Your task to perform on an android device: Go to settings Image 0: 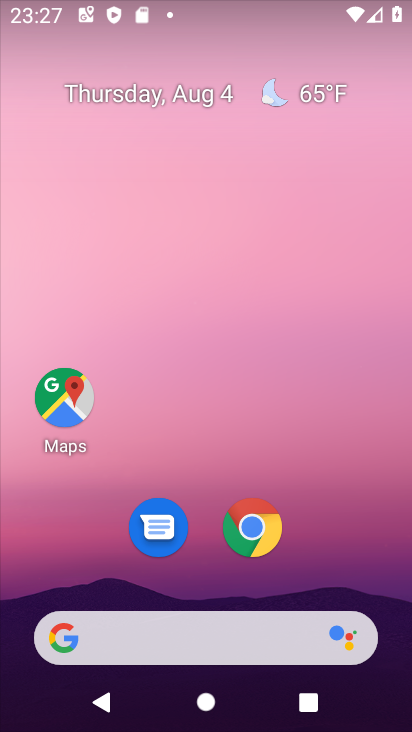
Step 0: drag from (155, 682) to (227, 152)
Your task to perform on an android device: Go to settings Image 1: 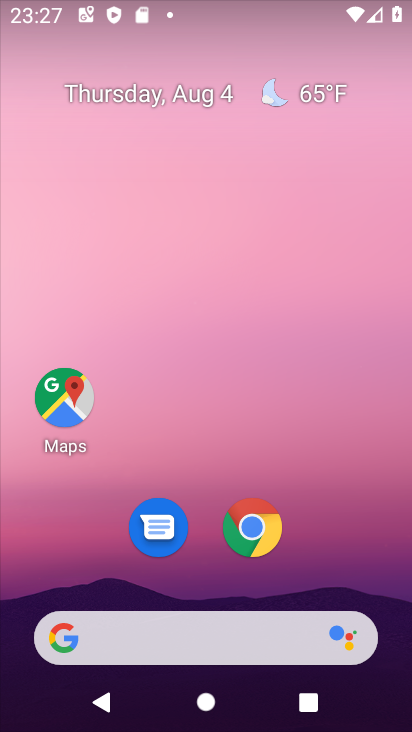
Step 1: drag from (145, 695) to (205, 234)
Your task to perform on an android device: Go to settings Image 2: 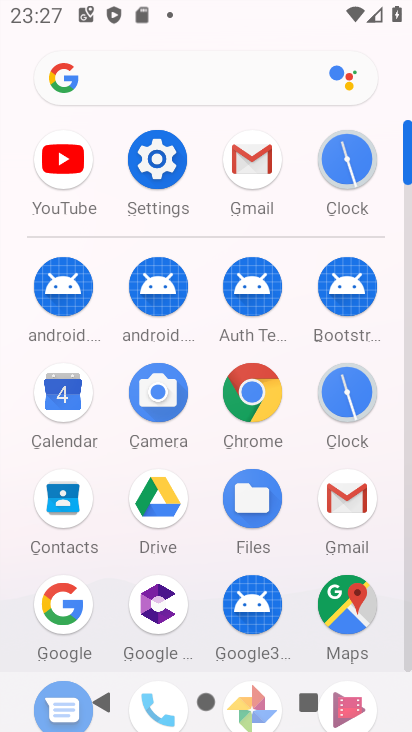
Step 2: click (136, 178)
Your task to perform on an android device: Go to settings Image 3: 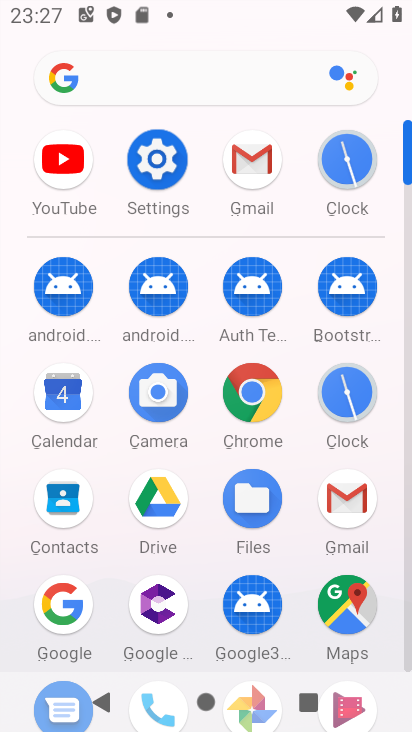
Step 3: click (136, 178)
Your task to perform on an android device: Go to settings Image 4: 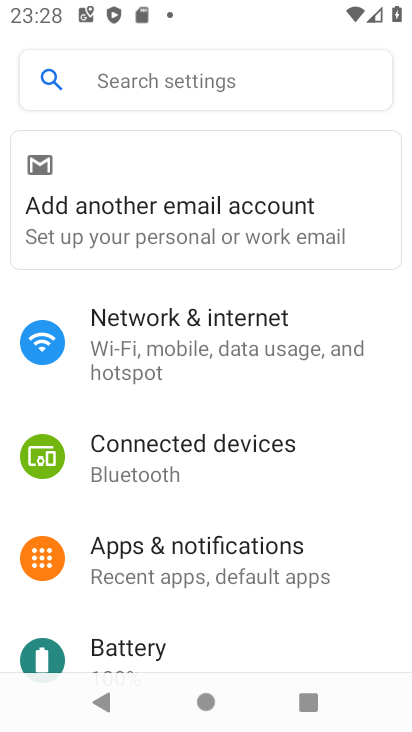
Step 4: task complete